Your task to perform on an android device: show emergency info Image 0: 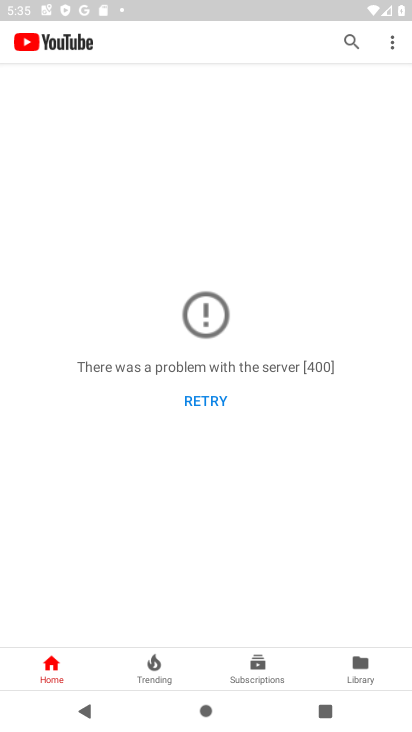
Step 0: press home button
Your task to perform on an android device: show emergency info Image 1: 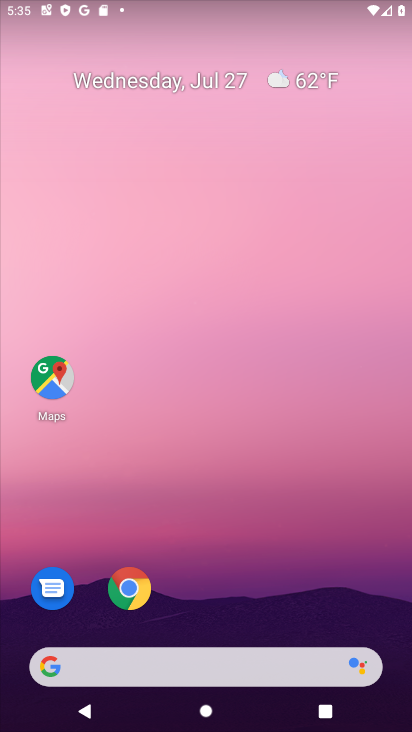
Step 1: click (195, 596)
Your task to perform on an android device: show emergency info Image 2: 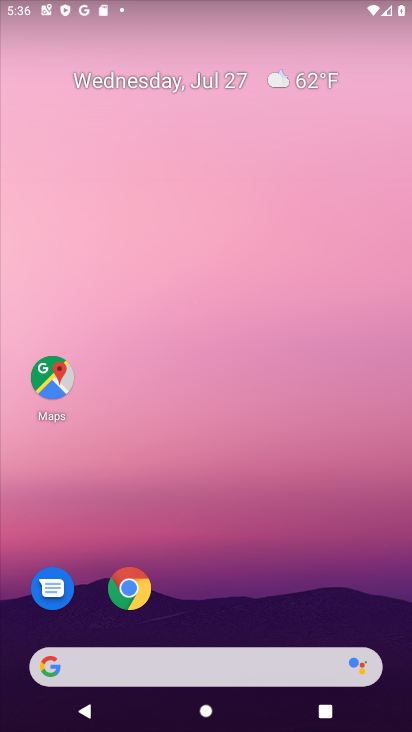
Step 2: drag from (216, 603) to (196, 174)
Your task to perform on an android device: show emergency info Image 3: 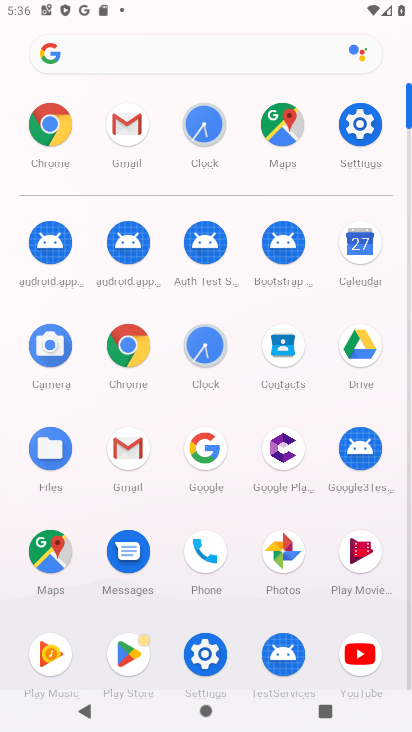
Step 3: click (361, 116)
Your task to perform on an android device: show emergency info Image 4: 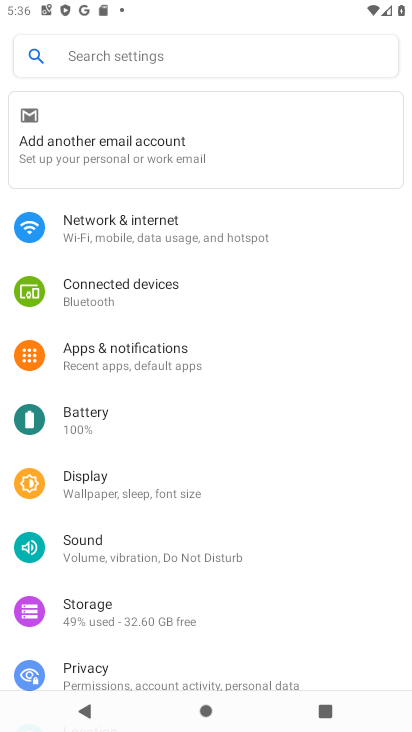
Step 4: drag from (136, 621) to (99, 238)
Your task to perform on an android device: show emergency info Image 5: 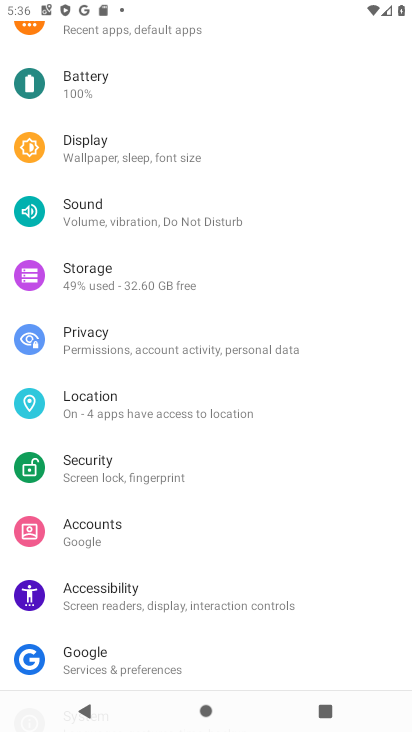
Step 5: drag from (205, 600) to (225, 85)
Your task to perform on an android device: show emergency info Image 6: 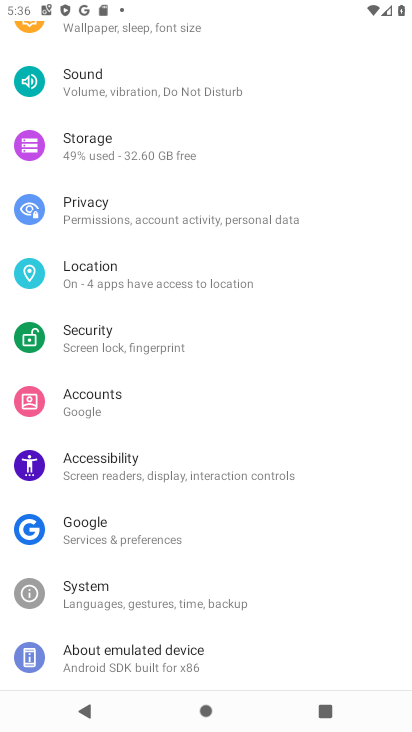
Step 6: click (131, 657)
Your task to perform on an android device: show emergency info Image 7: 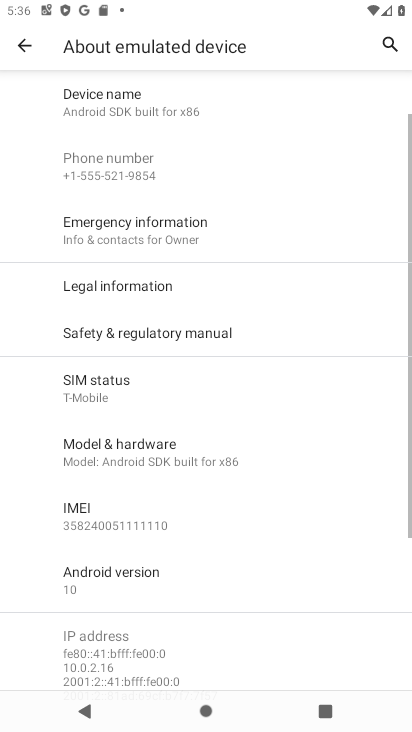
Step 7: click (151, 237)
Your task to perform on an android device: show emergency info Image 8: 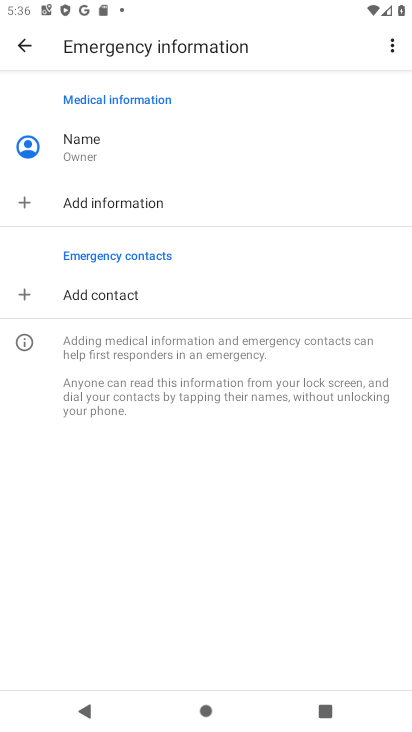
Step 8: task complete